Your task to perform on an android device: turn notification dots off Image 0: 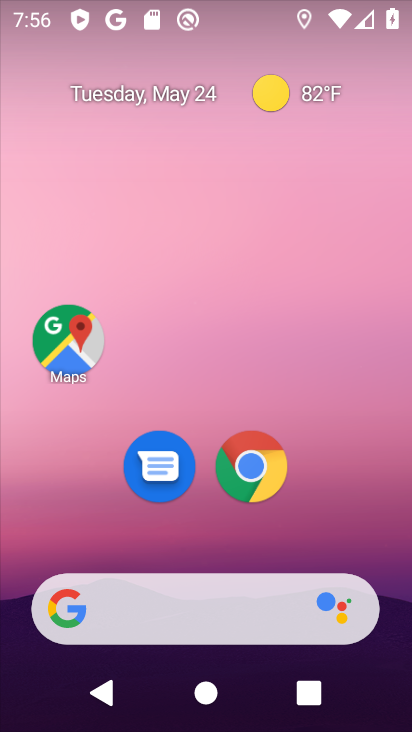
Step 0: drag from (179, 572) to (276, 66)
Your task to perform on an android device: turn notification dots off Image 1: 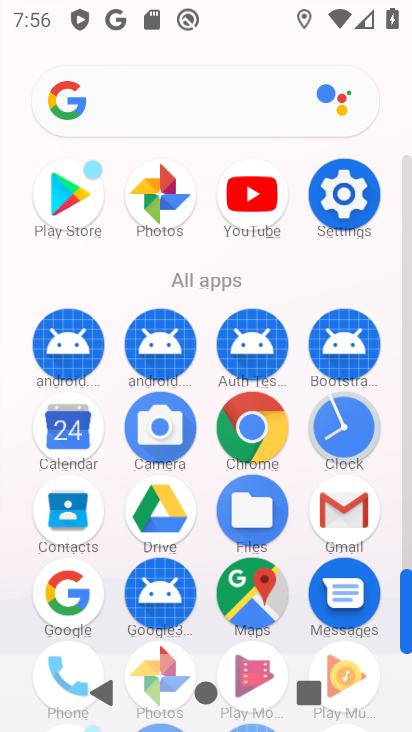
Step 1: click (346, 199)
Your task to perform on an android device: turn notification dots off Image 2: 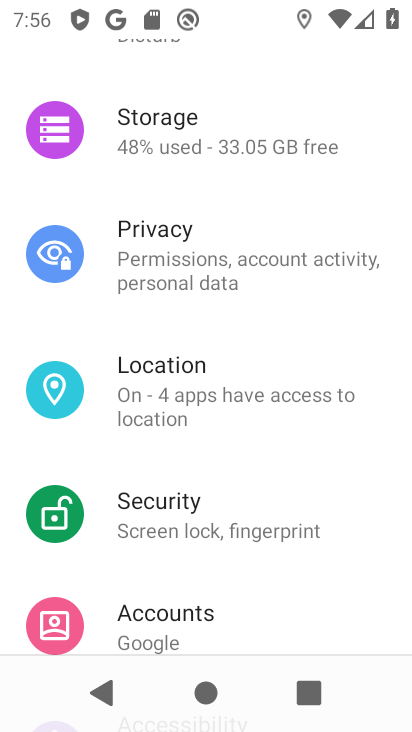
Step 2: drag from (275, 140) to (290, 514)
Your task to perform on an android device: turn notification dots off Image 3: 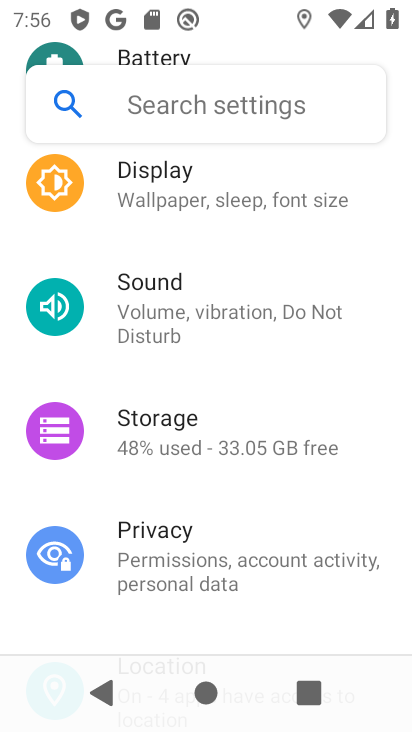
Step 3: drag from (265, 139) to (289, 539)
Your task to perform on an android device: turn notification dots off Image 4: 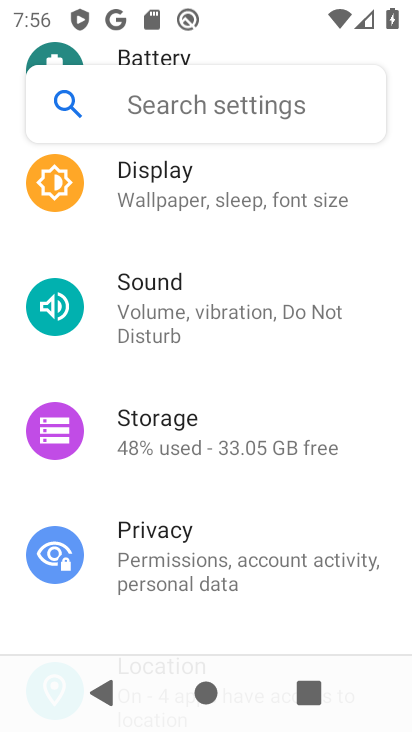
Step 4: drag from (227, 172) to (183, 619)
Your task to perform on an android device: turn notification dots off Image 5: 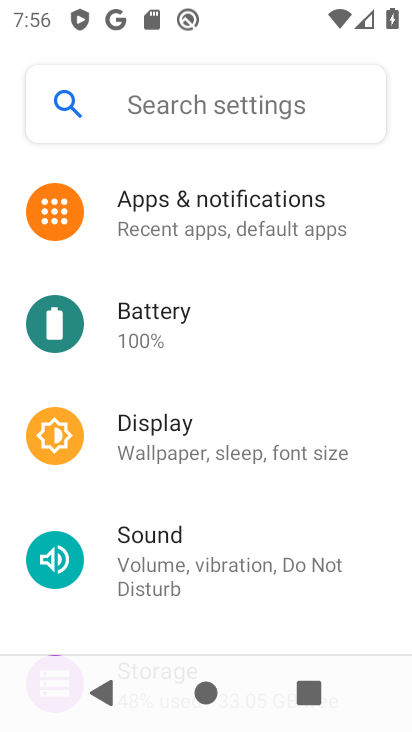
Step 5: click (178, 224)
Your task to perform on an android device: turn notification dots off Image 6: 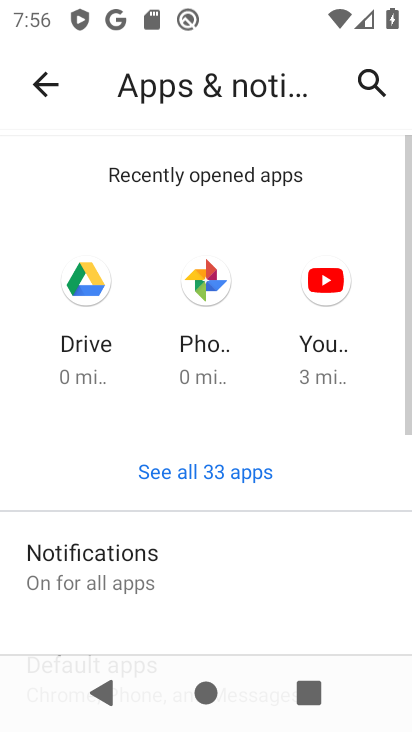
Step 6: click (137, 570)
Your task to perform on an android device: turn notification dots off Image 7: 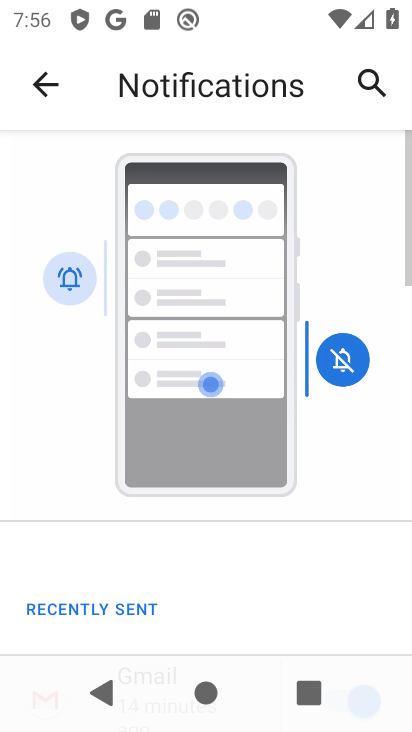
Step 7: drag from (172, 630) to (245, 229)
Your task to perform on an android device: turn notification dots off Image 8: 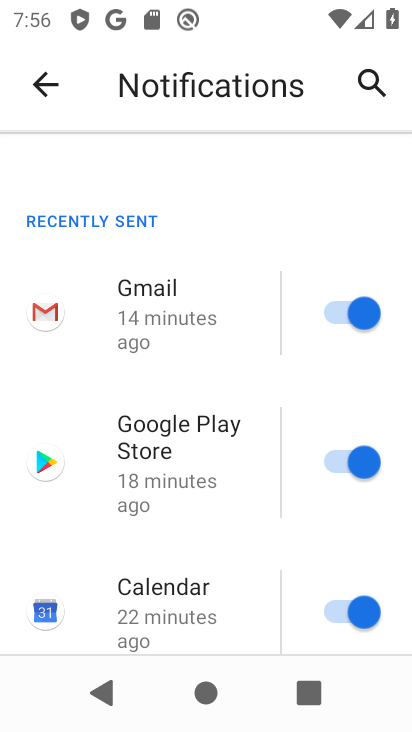
Step 8: drag from (226, 641) to (272, 254)
Your task to perform on an android device: turn notification dots off Image 9: 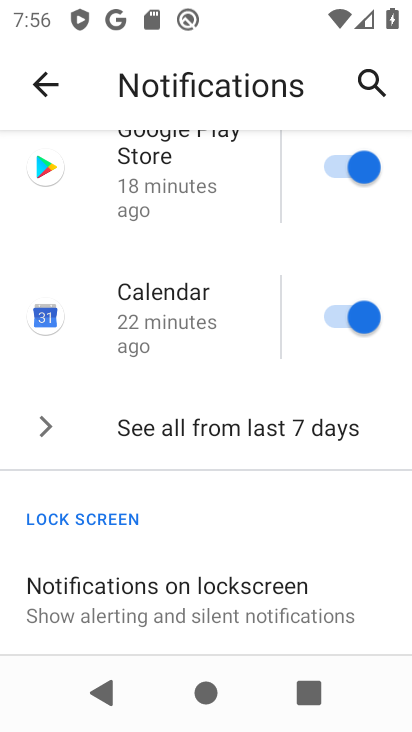
Step 9: click (205, 590)
Your task to perform on an android device: turn notification dots off Image 10: 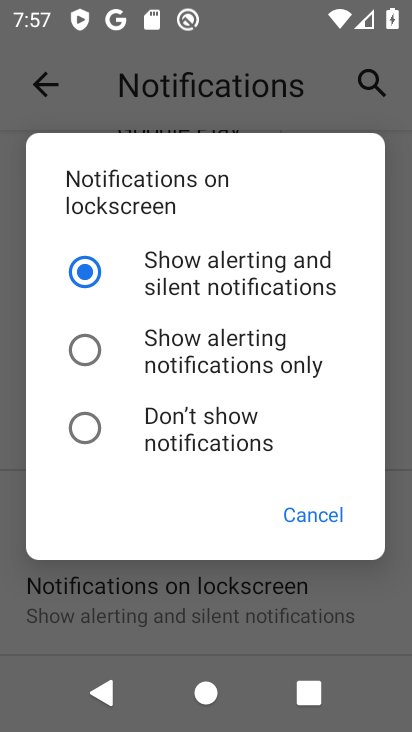
Step 10: click (329, 529)
Your task to perform on an android device: turn notification dots off Image 11: 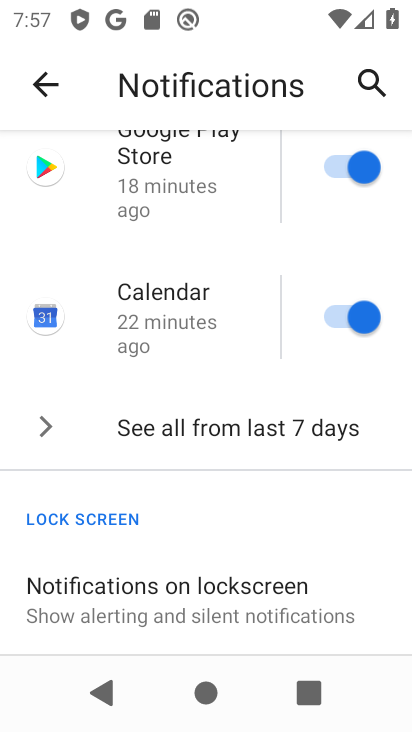
Step 11: drag from (319, 619) to (307, 237)
Your task to perform on an android device: turn notification dots off Image 12: 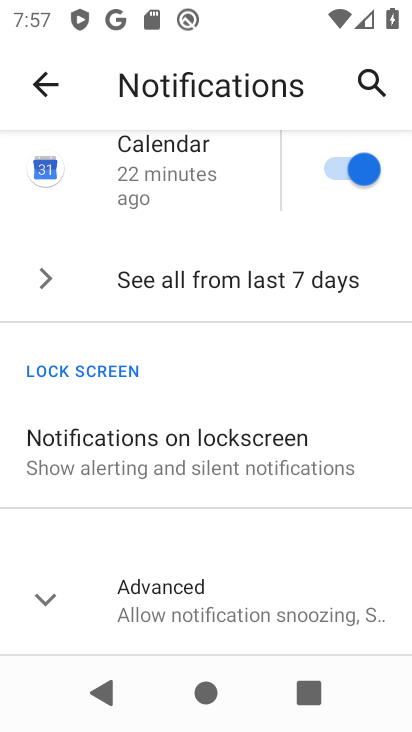
Step 12: click (240, 608)
Your task to perform on an android device: turn notification dots off Image 13: 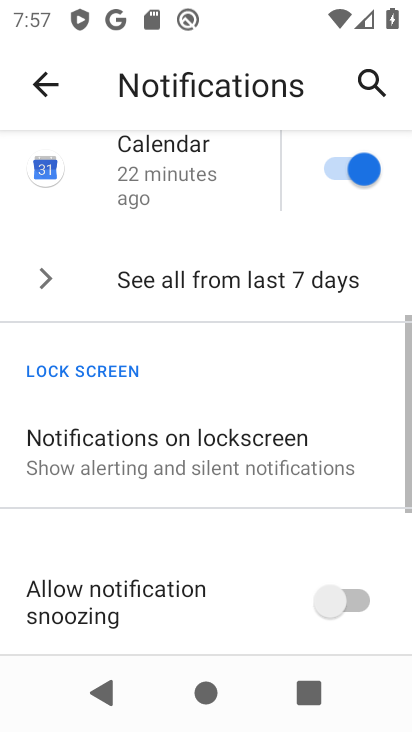
Step 13: drag from (269, 635) to (304, 274)
Your task to perform on an android device: turn notification dots off Image 14: 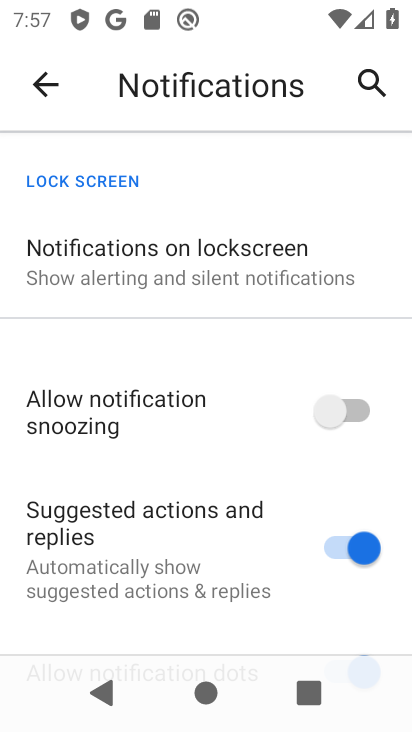
Step 14: drag from (275, 613) to (294, 265)
Your task to perform on an android device: turn notification dots off Image 15: 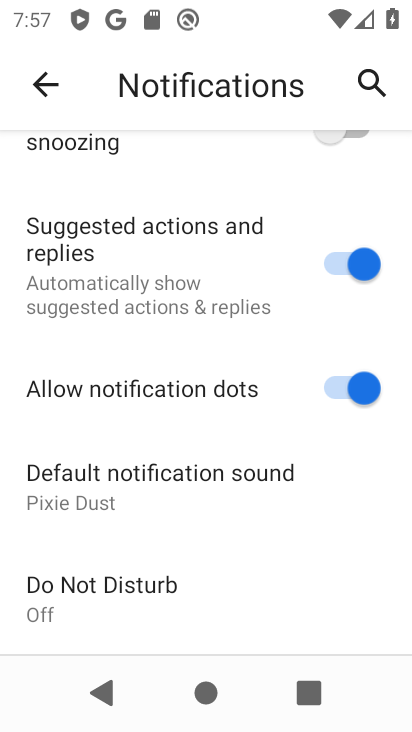
Step 15: click (339, 385)
Your task to perform on an android device: turn notification dots off Image 16: 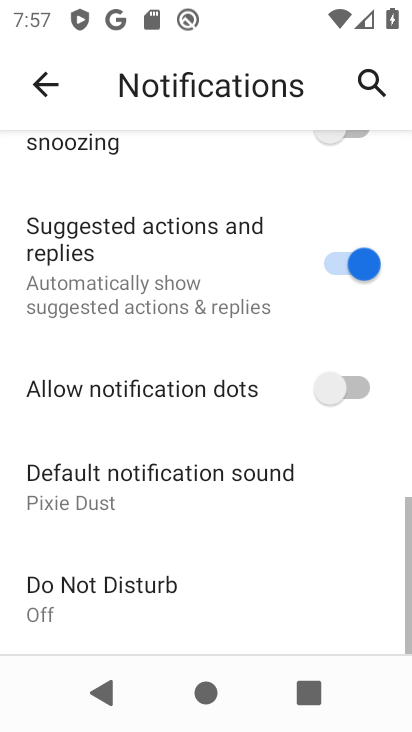
Step 16: task complete